Your task to perform on an android device: search for starred emails in the gmail app Image 0: 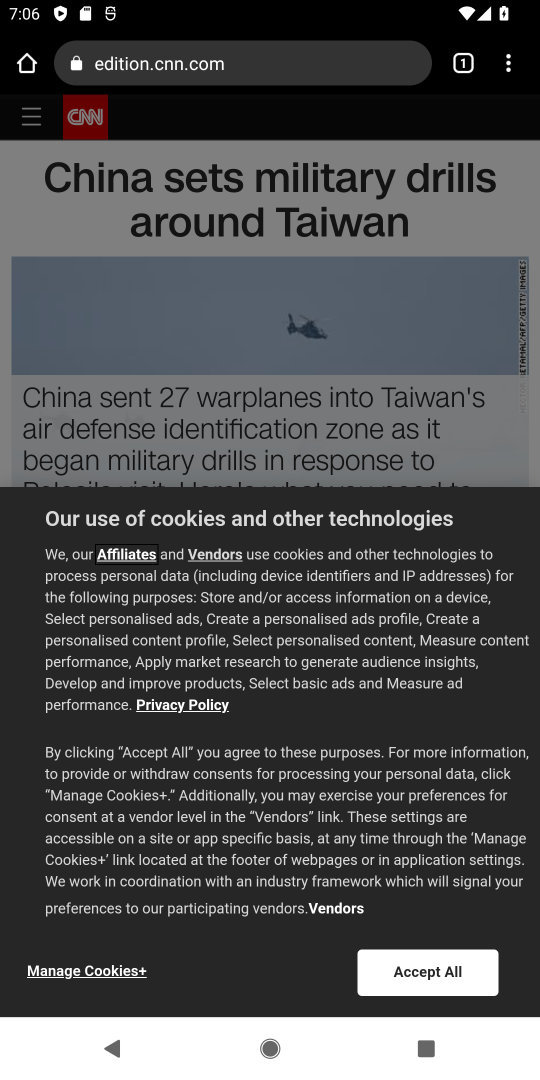
Step 0: press back button
Your task to perform on an android device: search for starred emails in the gmail app Image 1: 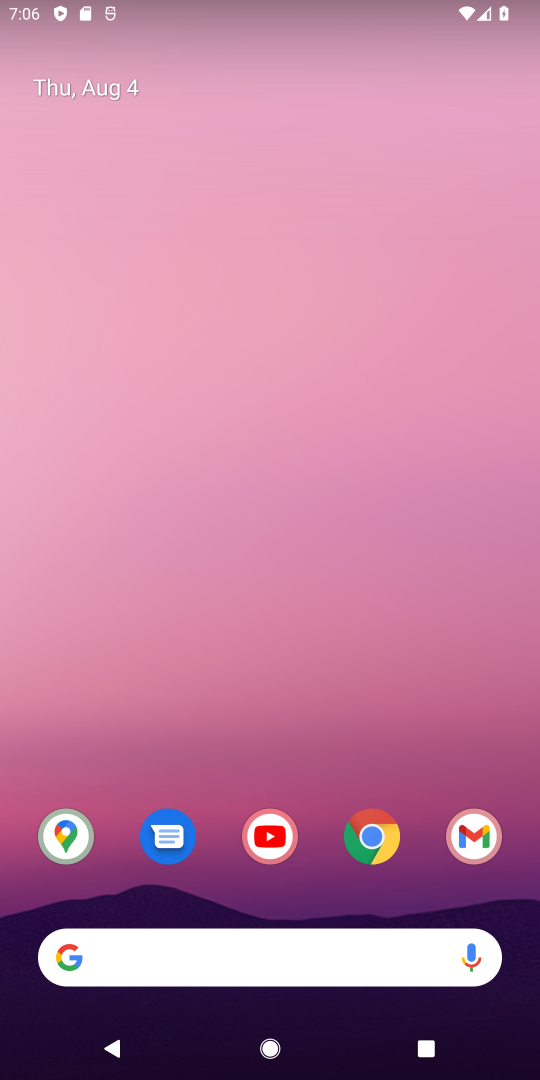
Step 1: click (472, 814)
Your task to perform on an android device: search for starred emails in the gmail app Image 2: 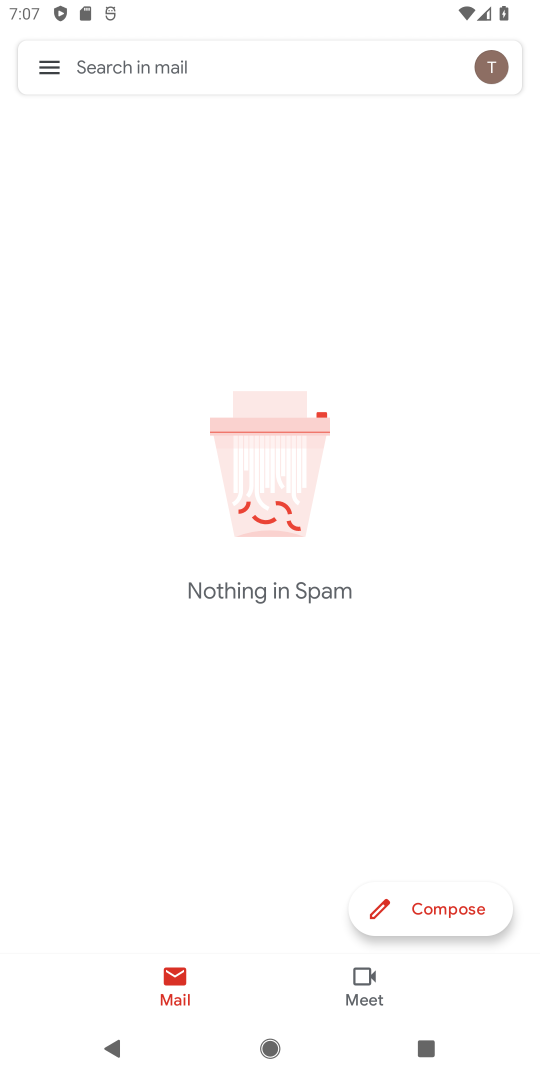
Step 2: click (43, 66)
Your task to perform on an android device: search for starred emails in the gmail app Image 3: 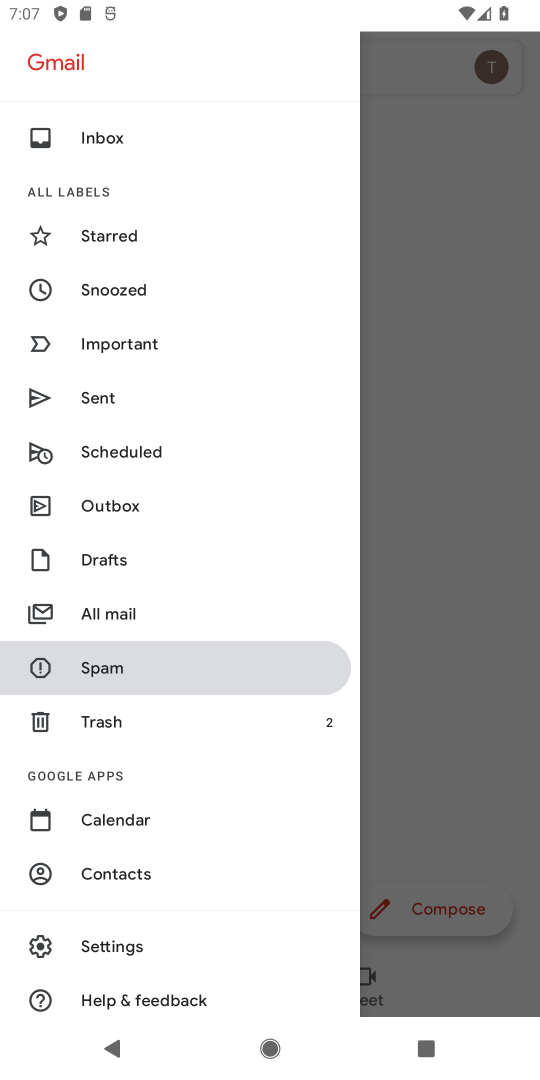
Step 3: click (139, 236)
Your task to perform on an android device: search for starred emails in the gmail app Image 4: 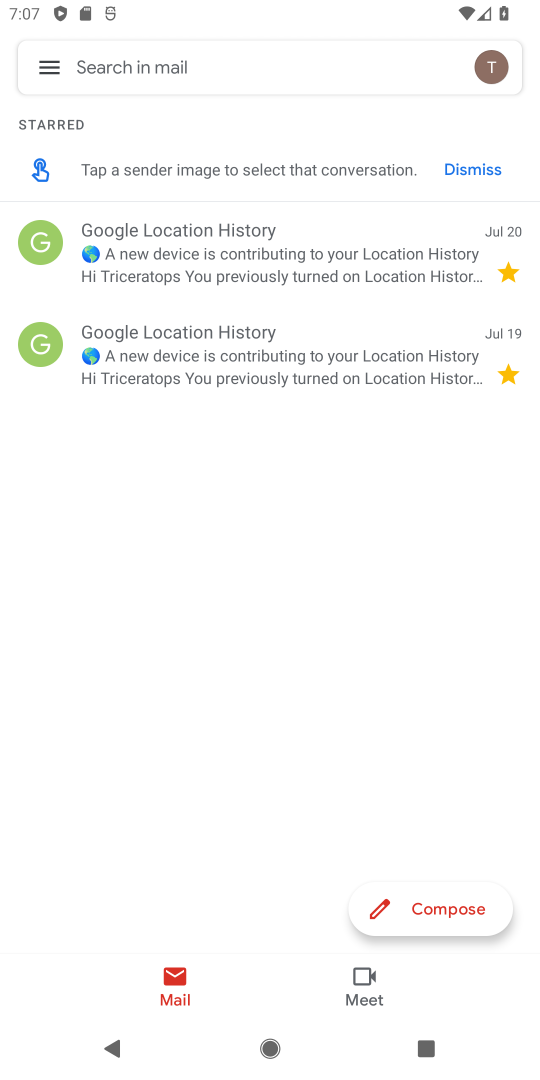
Step 4: task complete